Your task to perform on an android device: Open the stopwatch Image 0: 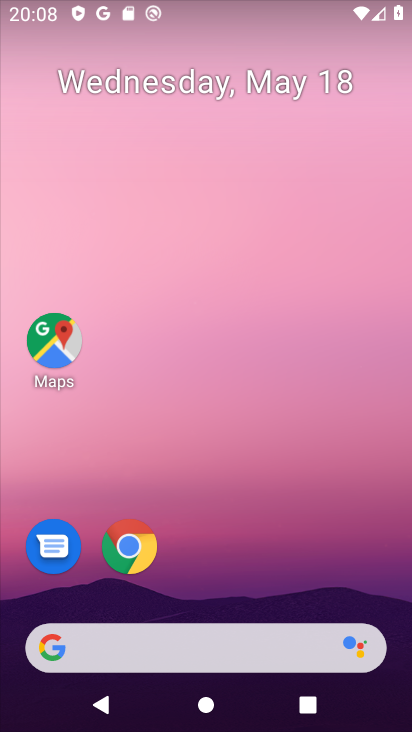
Step 0: drag from (231, 603) to (208, 101)
Your task to perform on an android device: Open the stopwatch Image 1: 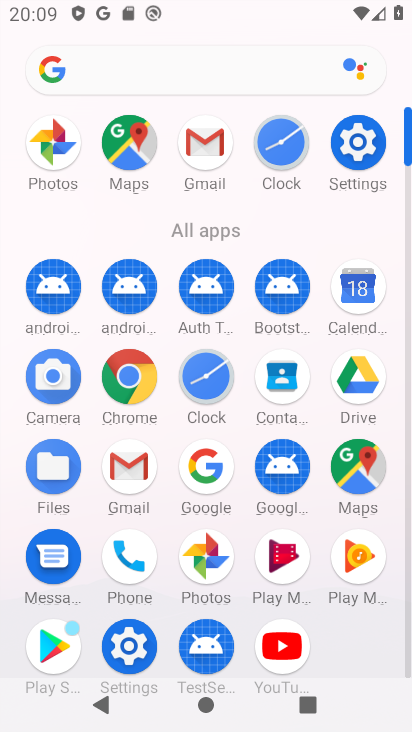
Step 1: click (290, 129)
Your task to perform on an android device: Open the stopwatch Image 2: 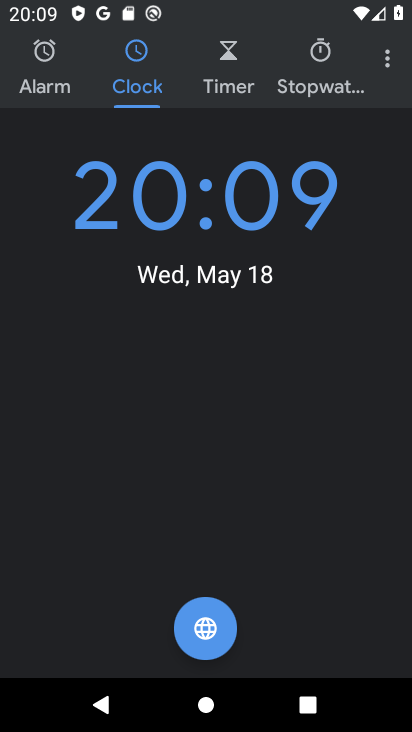
Step 2: click (324, 80)
Your task to perform on an android device: Open the stopwatch Image 3: 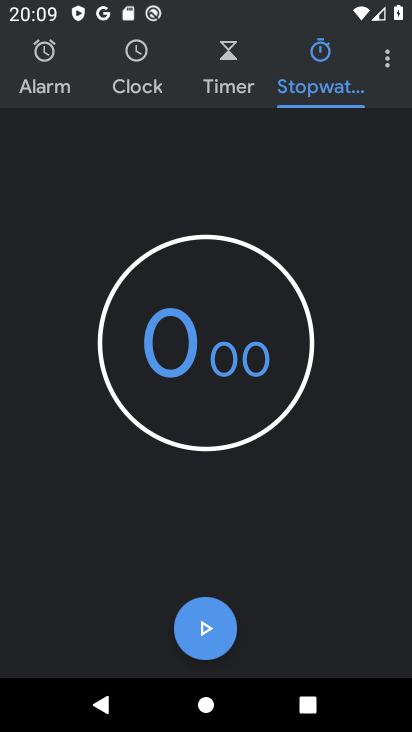
Step 3: task complete